Your task to perform on an android device: open chrome and create a bookmark for the current page Image 0: 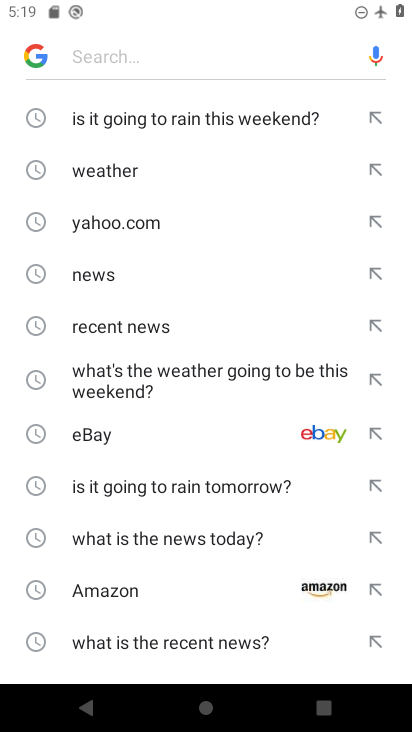
Step 0: press back button
Your task to perform on an android device: open chrome and create a bookmark for the current page Image 1: 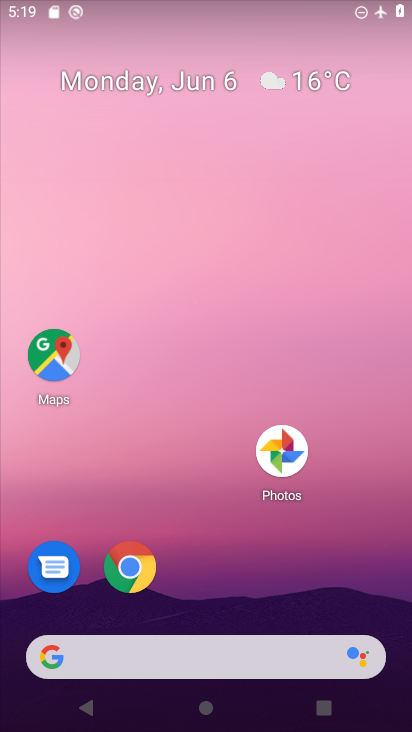
Step 1: drag from (191, 558) to (103, 121)
Your task to perform on an android device: open chrome and create a bookmark for the current page Image 2: 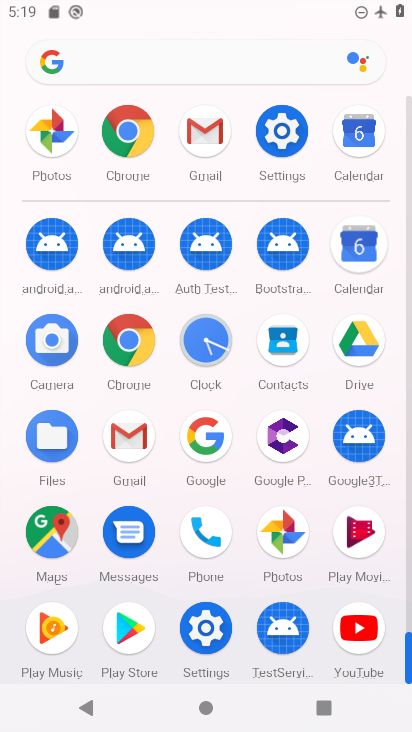
Step 2: click (124, 138)
Your task to perform on an android device: open chrome and create a bookmark for the current page Image 3: 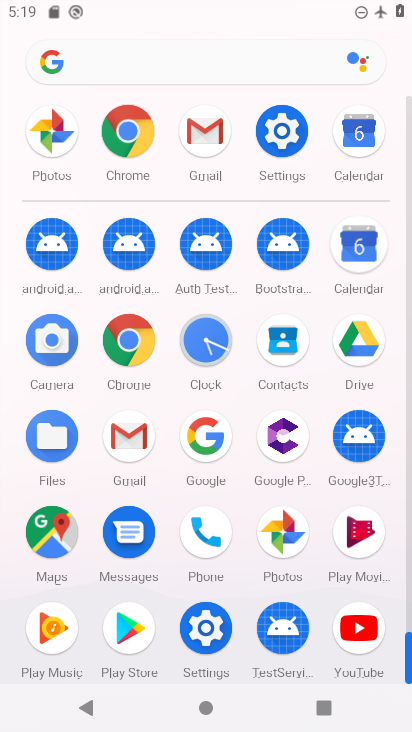
Step 3: click (124, 138)
Your task to perform on an android device: open chrome and create a bookmark for the current page Image 4: 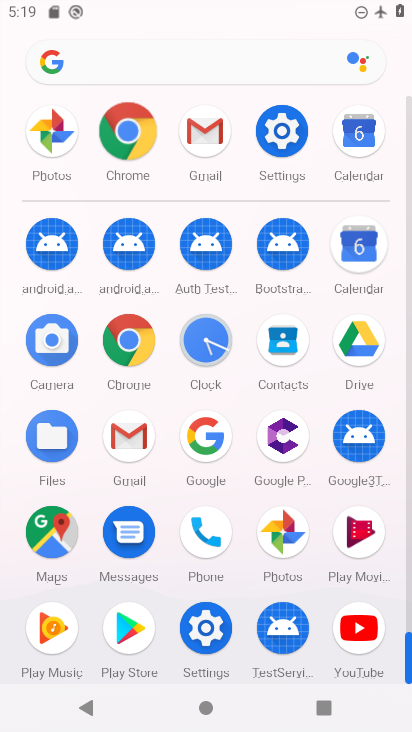
Step 4: click (125, 139)
Your task to perform on an android device: open chrome and create a bookmark for the current page Image 5: 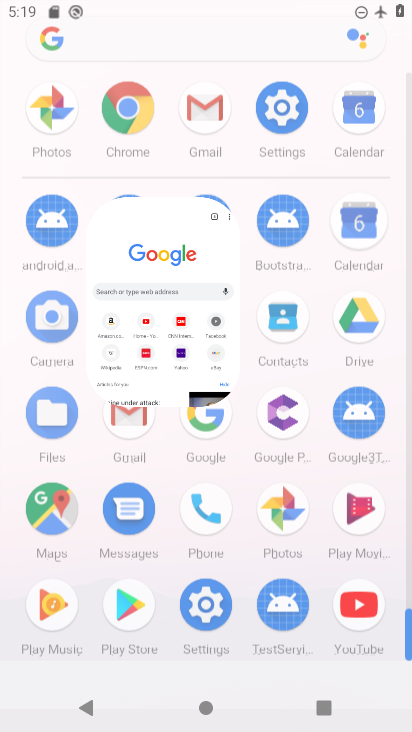
Step 5: click (126, 139)
Your task to perform on an android device: open chrome and create a bookmark for the current page Image 6: 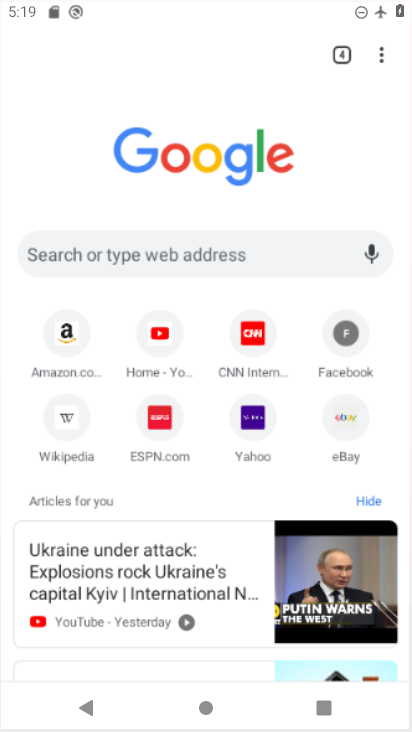
Step 6: click (128, 139)
Your task to perform on an android device: open chrome and create a bookmark for the current page Image 7: 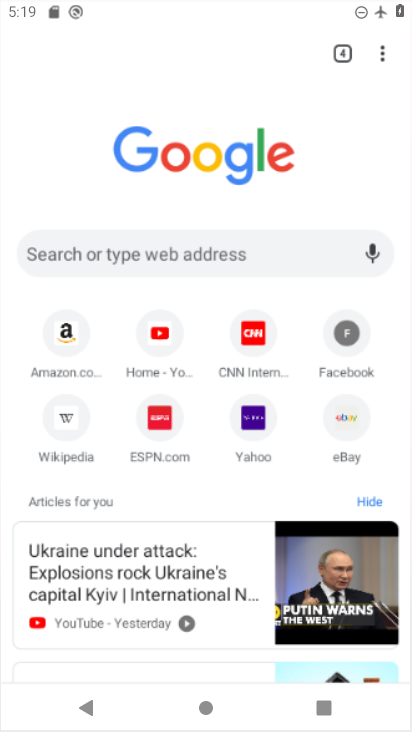
Step 7: click (130, 140)
Your task to perform on an android device: open chrome and create a bookmark for the current page Image 8: 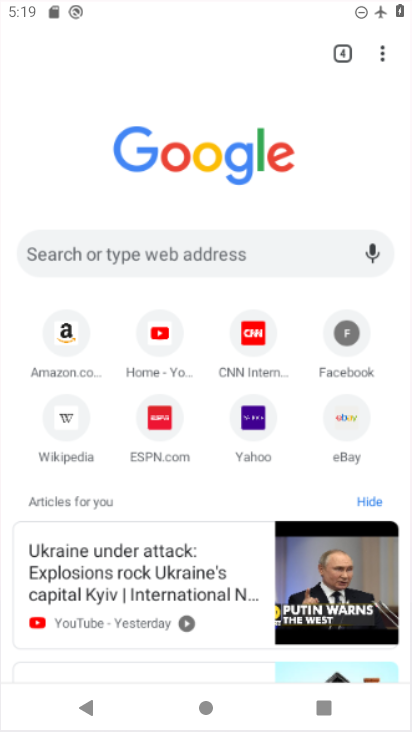
Step 8: click (130, 140)
Your task to perform on an android device: open chrome and create a bookmark for the current page Image 9: 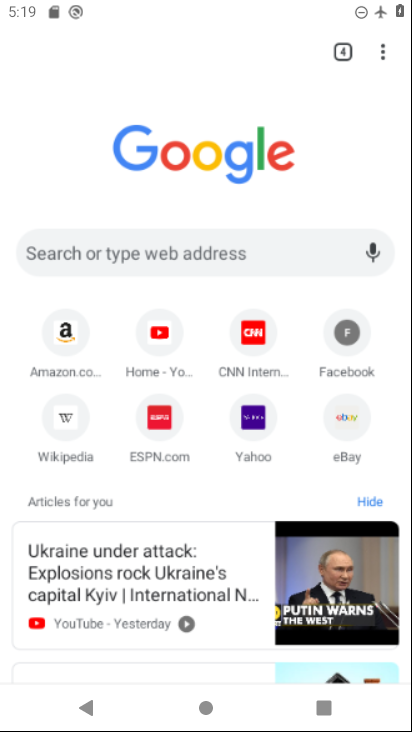
Step 9: click (379, 54)
Your task to perform on an android device: open chrome and create a bookmark for the current page Image 10: 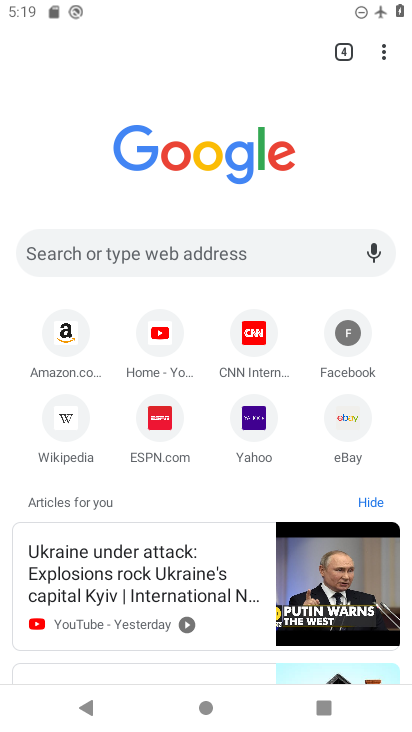
Step 10: drag from (375, 54) to (198, 104)
Your task to perform on an android device: open chrome and create a bookmark for the current page Image 11: 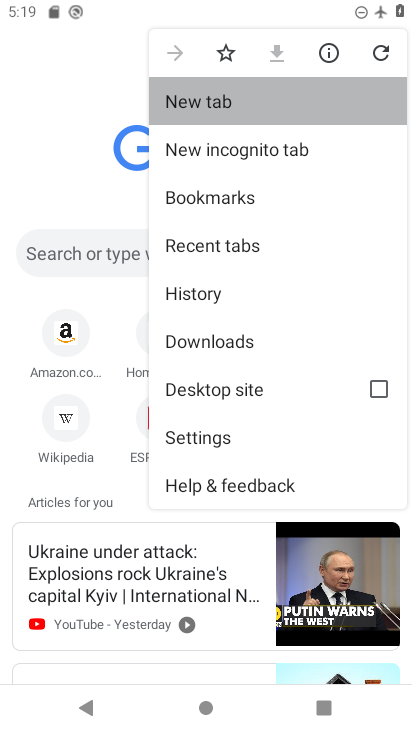
Step 11: click (198, 104)
Your task to perform on an android device: open chrome and create a bookmark for the current page Image 12: 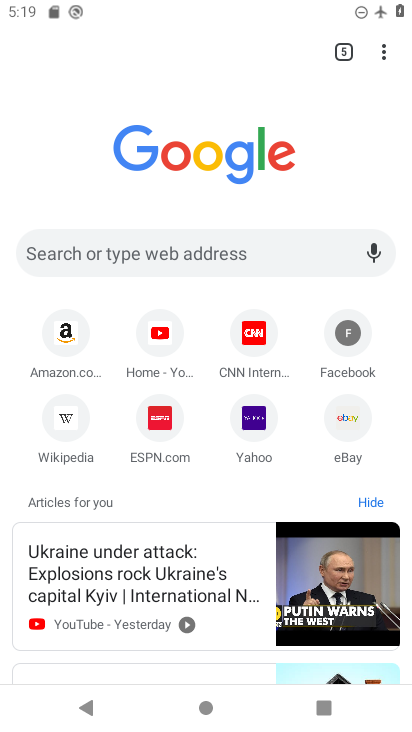
Step 12: click (72, 256)
Your task to perform on an android device: open chrome and create a bookmark for the current page Image 13: 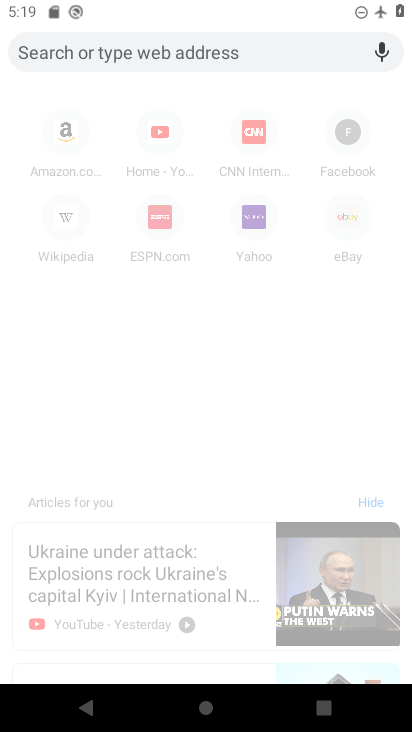
Step 13: type "www.snapdeal.com"
Your task to perform on an android device: open chrome and create a bookmark for the current page Image 14: 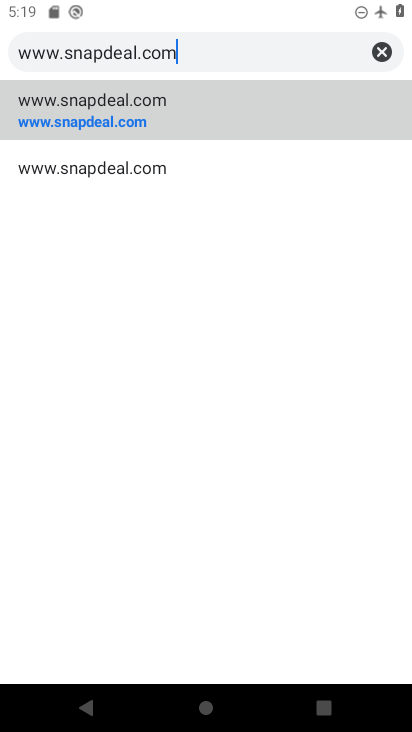
Step 14: click (93, 118)
Your task to perform on an android device: open chrome and create a bookmark for the current page Image 15: 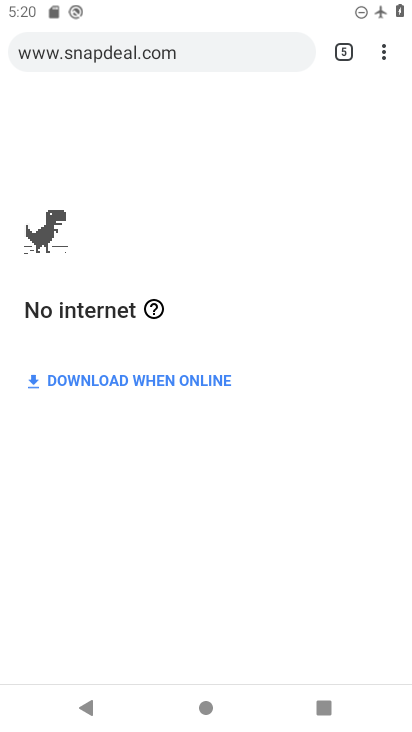
Step 15: task complete